Your task to perform on an android device: turn off priority inbox in the gmail app Image 0: 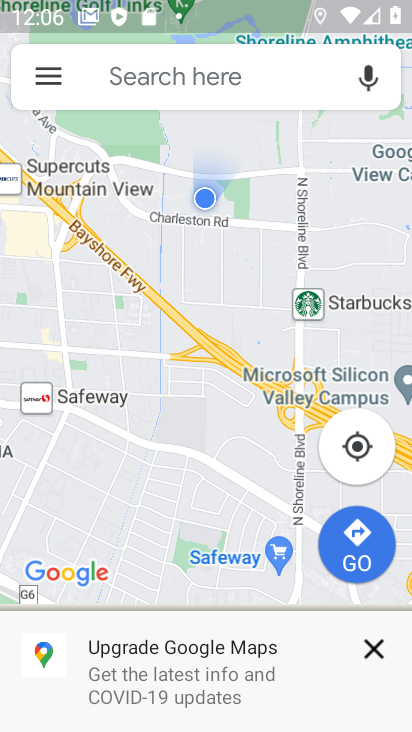
Step 0: press home button
Your task to perform on an android device: turn off priority inbox in the gmail app Image 1: 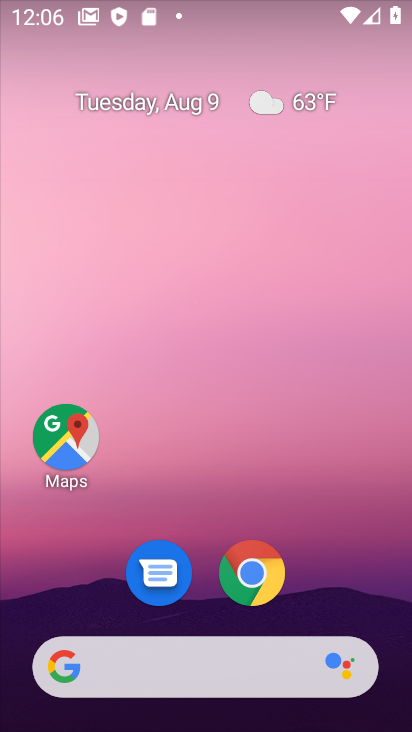
Step 1: drag from (183, 631) to (182, 243)
Your task to perform on an android device: turn off priority inbox in the gmail app Image 2: 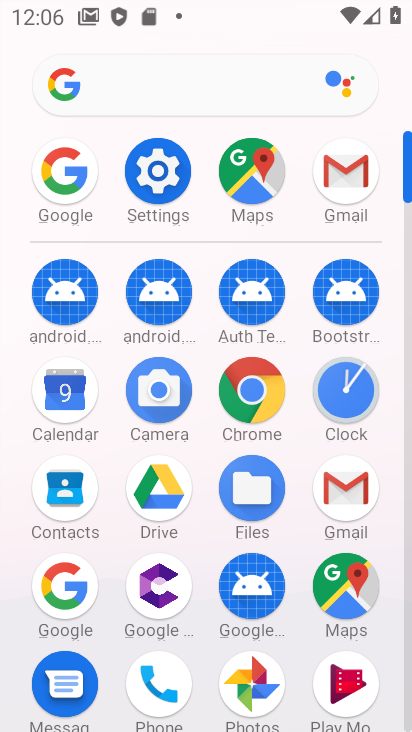
Step 2: click (349, 488)
Your task to perform on an android device: turn off priority inbox in the gmail app Image 3: 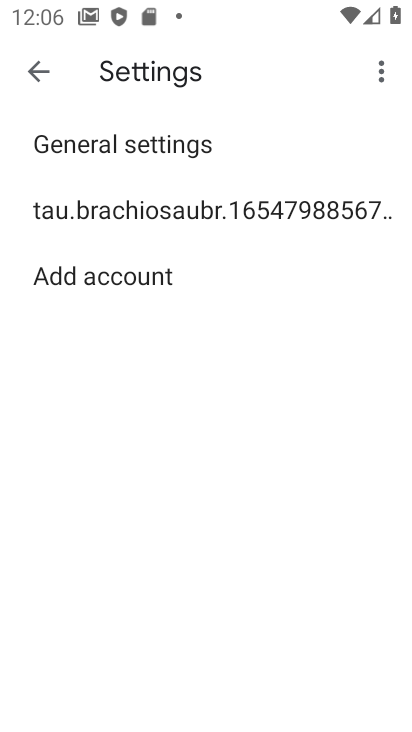
Step 3: click (88, 214)
Your task to perform on an android device: turn off priority inbox in the gmail app Image 4: 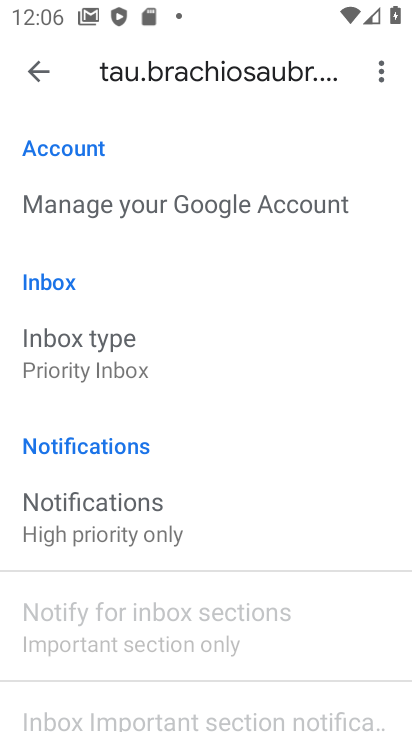
Step 4: click (93, 367)
Your task to perform on an android device: turn off priority inbox in the gmail app Image 5: 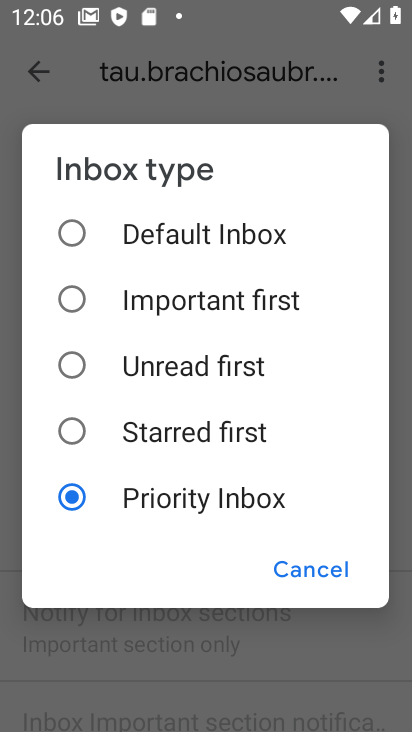
Step 5: click (92, 294)
Your task to perform on an android device: turn off priority inbox in the gmail app Image 6: 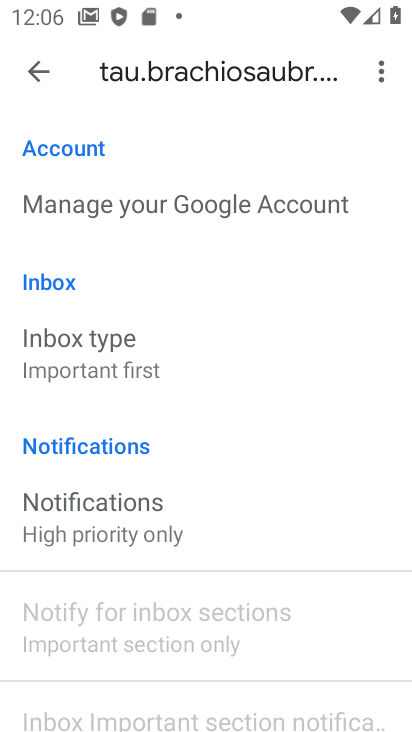
Step 6: task complete